Your task to perform on an android device: turn off smart reply in the gmail app Image 0: 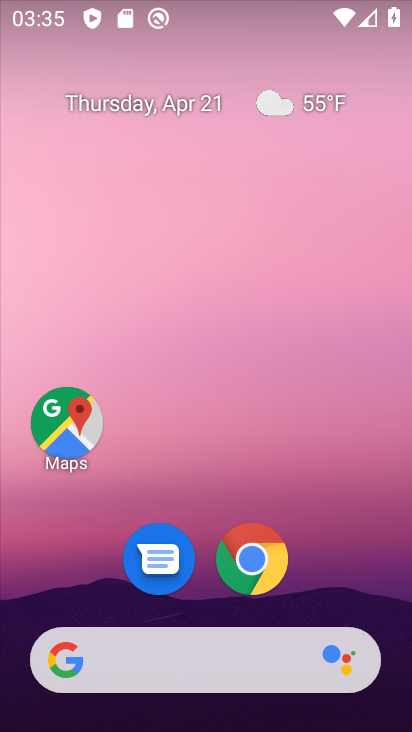
Step 0: drag from (356, 529) to (322, 100)
Your task to perform on an android device: turn off smart reply in the gmail app Image 1: 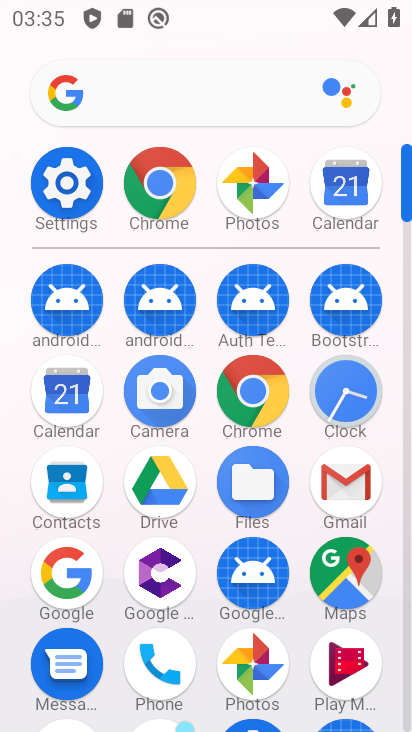
Step 1: click (345, 508)
Your task to perform on an android device: turn off smart reply in the gmail app Image 2: 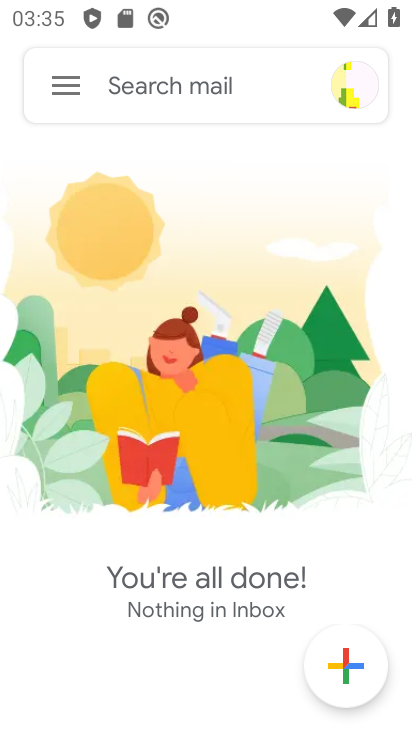
Step 2: click (65, 89)
Your task to perform on an android device: turn off smart reply in the gmail app Image 3: 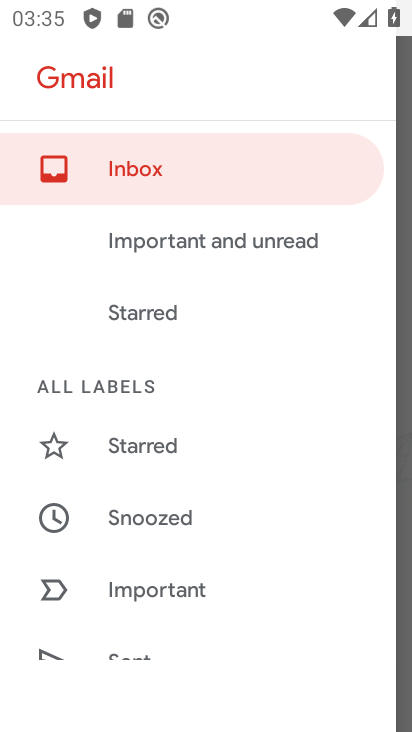
Step 3: drag from (203, 616) to (170, 144)
Your task to perform on an android device: turn off smart reply in the gmail app Image 4: 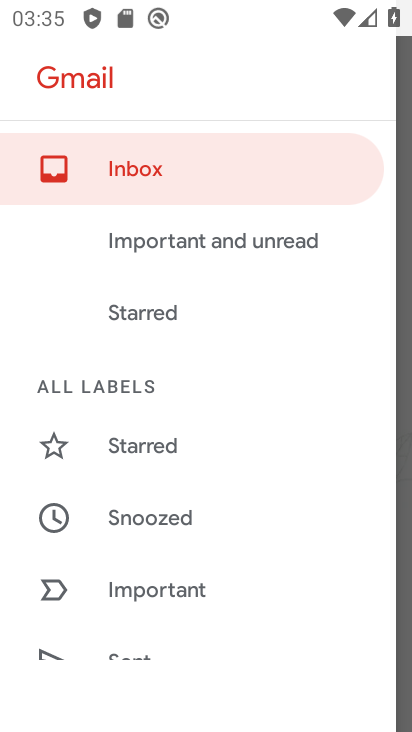
Step 4: drag from (191, 624) to (211, 161)
Your task to perform on an android device: turn off smart reply in the gmail app Image 5: 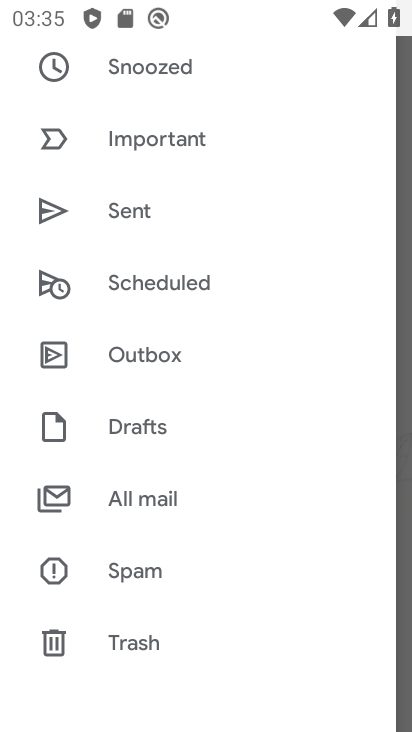
Step 5: drag from (143, 677) to (260, 117)
Your task to perform on an android device: turn off smart reply in the gmail app Image 6: 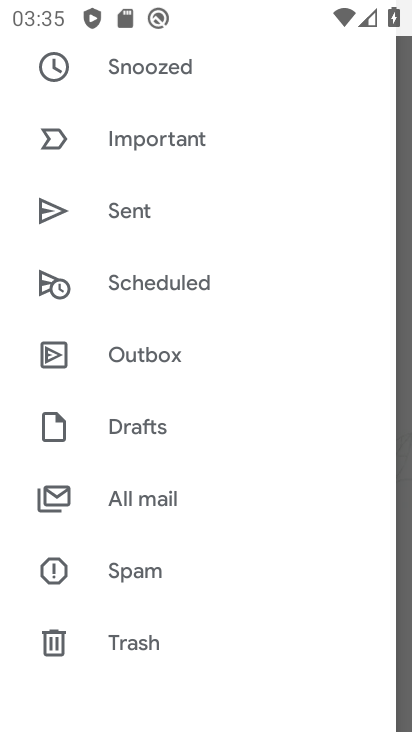
Step 6: drag from (84, 590) to (200, 127)
Your task to perform on an android device: turn off smart reply in the gmail app Image 7: 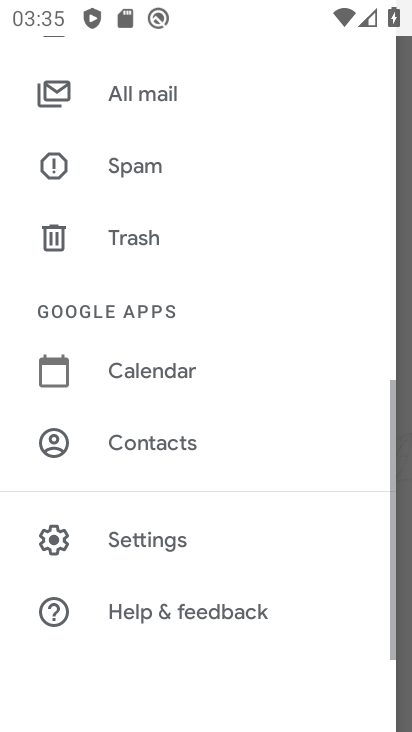
Step 7: click (162, 547)
Your task to perform on an android device: turn off smart reply in the gmail app Image 8: 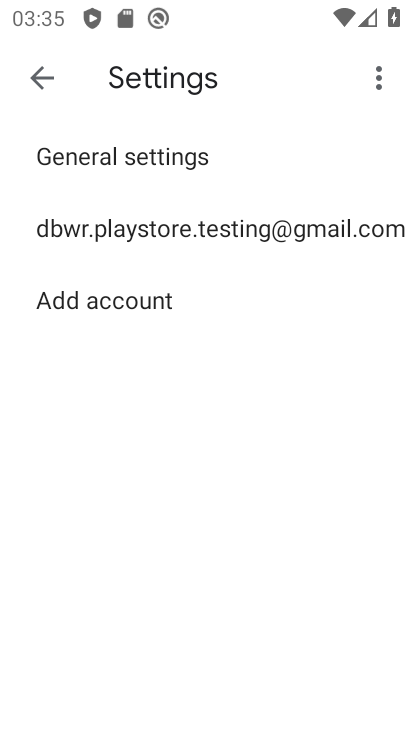
Step 8: click (125, 226)
Your task to perform on an android device: turn off smart reply in the gmail app Image 9: 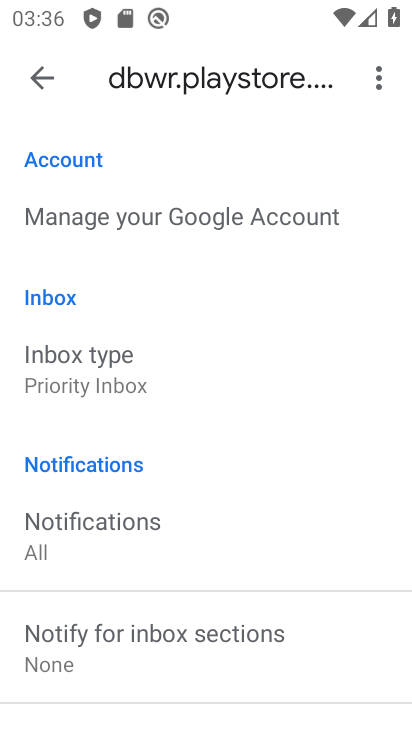
Step 9: task complete